Your task to perform on an android device: uninstall "Instagram" Image 0: 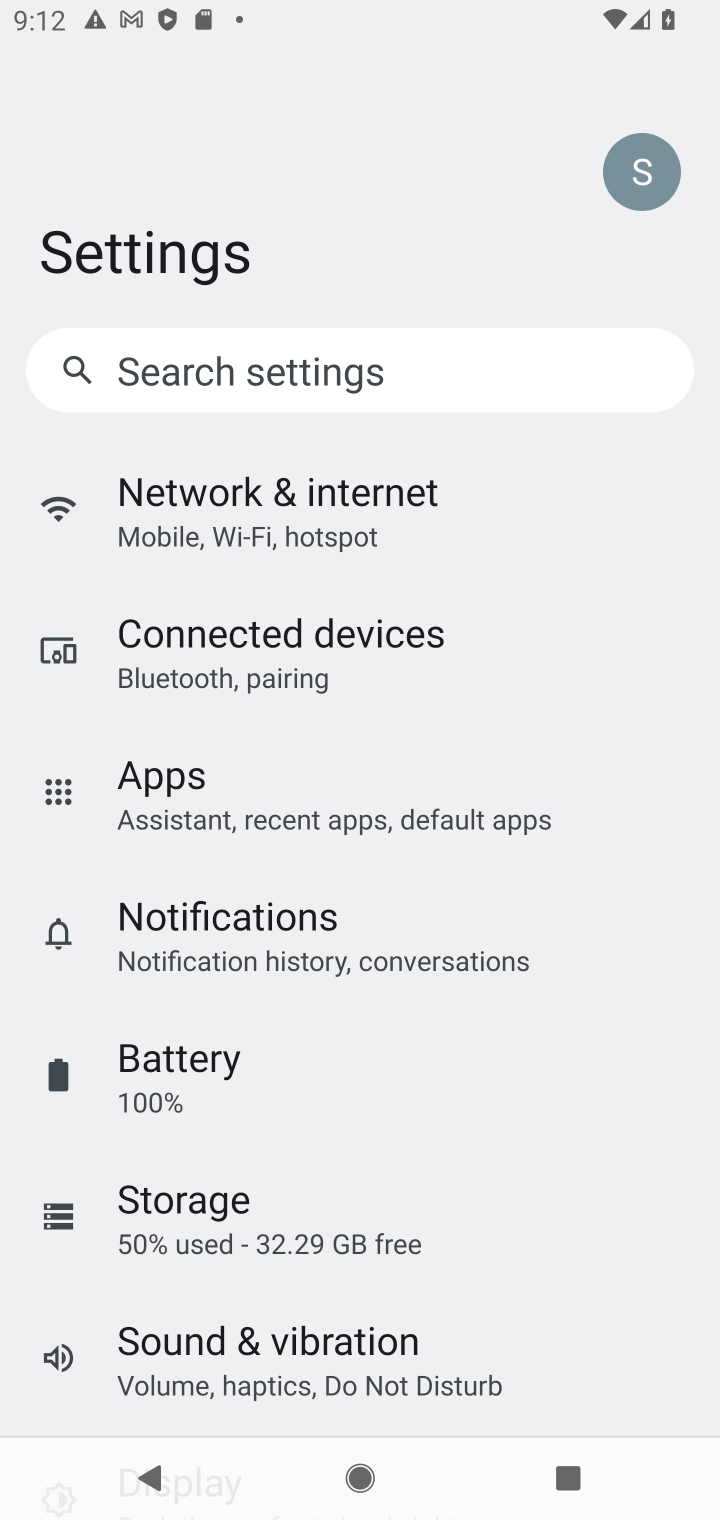
Step 0: press home button
Your task to perform on an android device: uninstall "Instagram" Image 1: 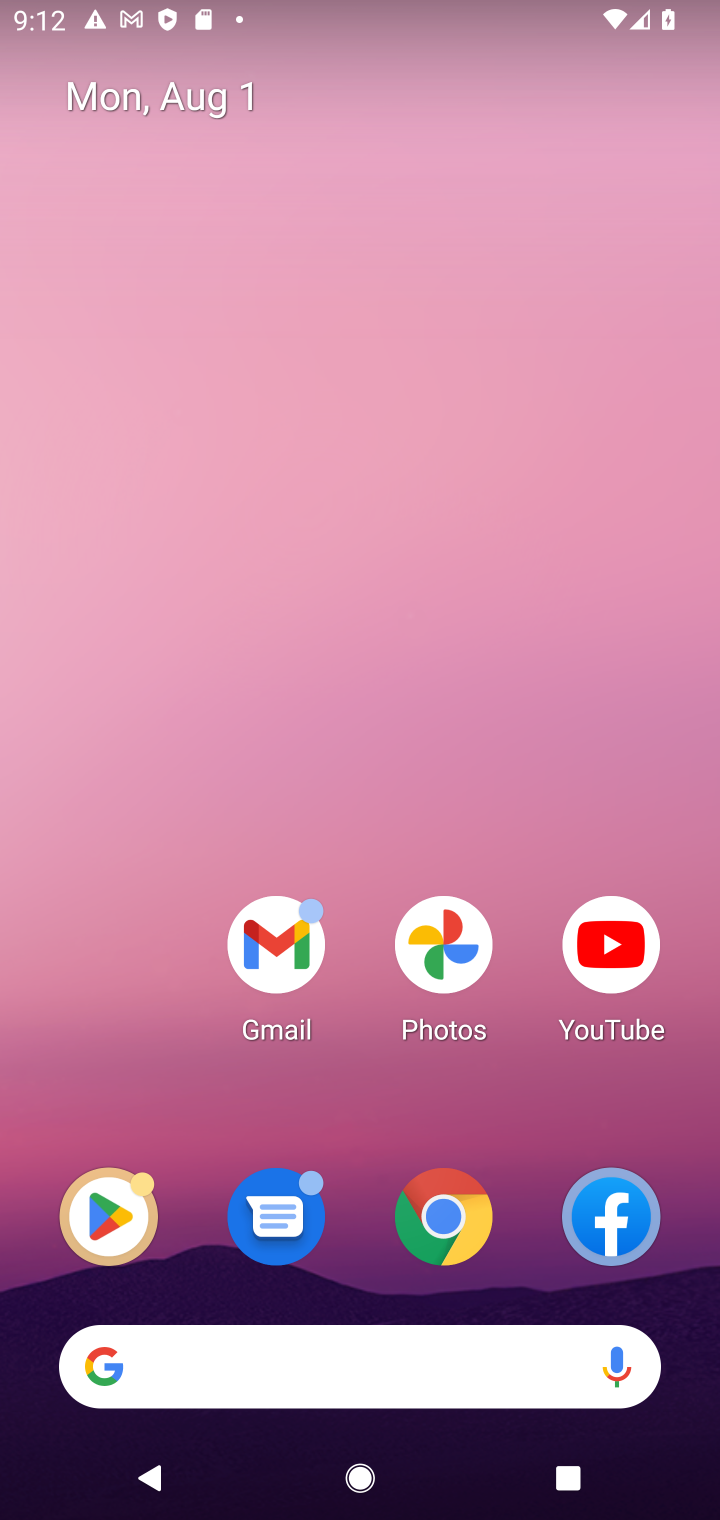
Step 1: click (123, 1224)
Your task to perform on an android device: uninstall "Instagram" Image 2: 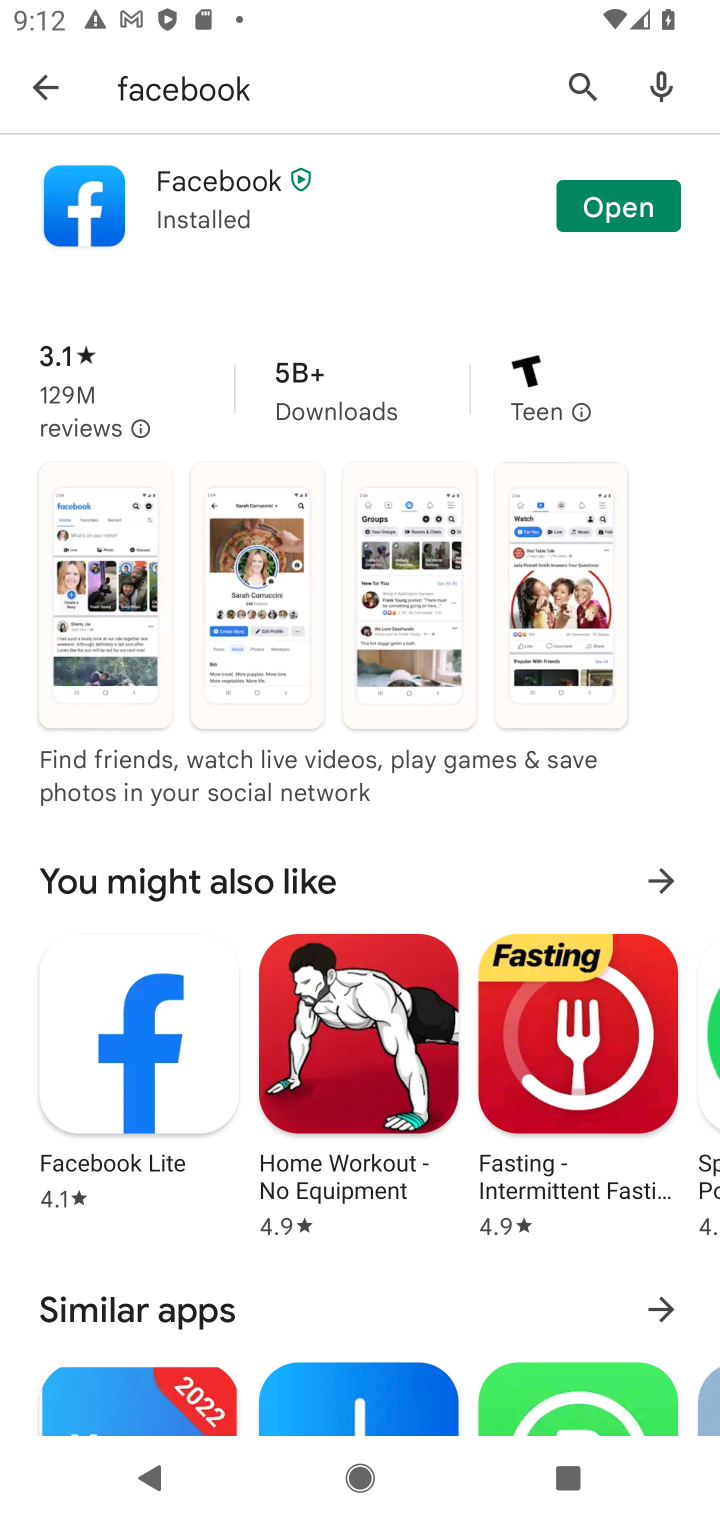
Step 2: click (590, 83)
Your task to perform on an android device: uninstall "Instagram" Image 3: 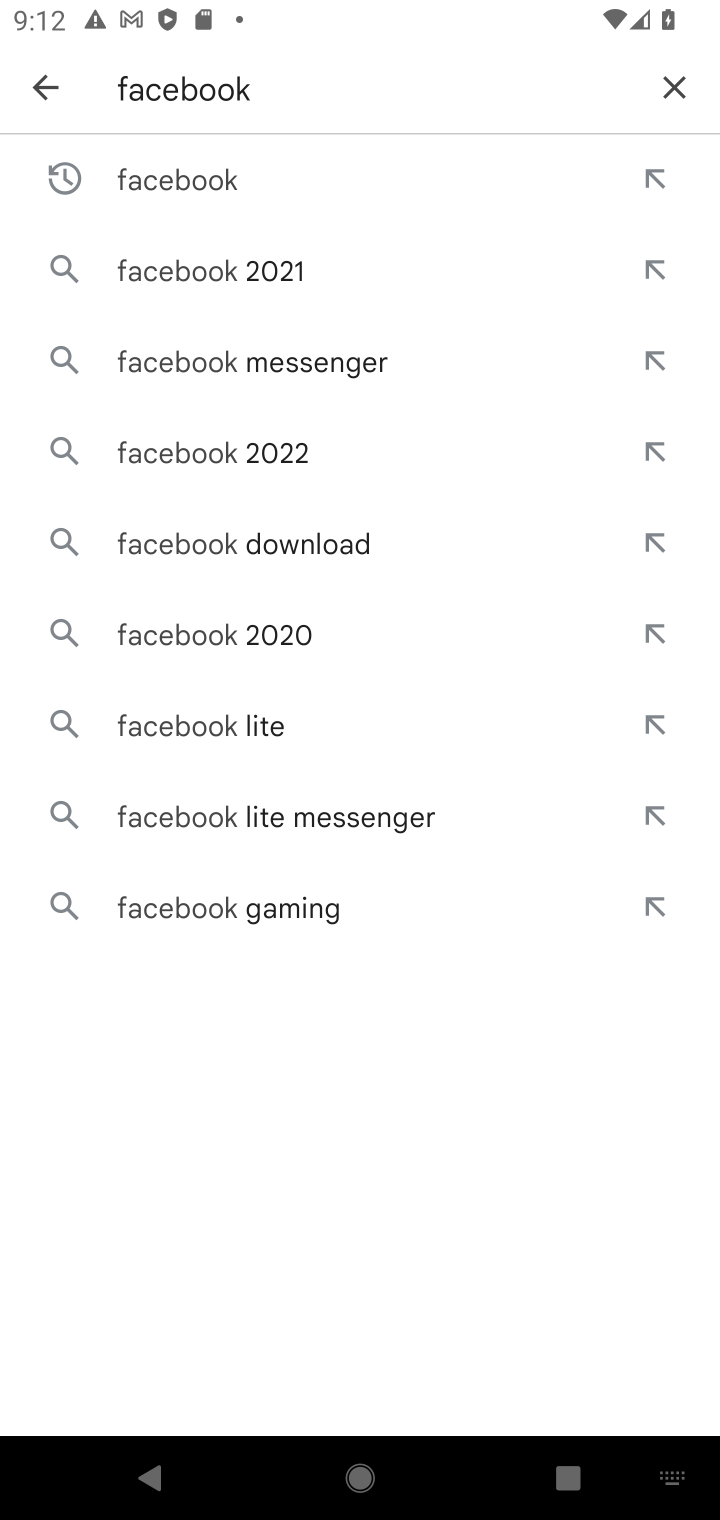
Step 3: click (670, 94)
Your task to perform on an android device: uninstall "Instagram" Image 4: 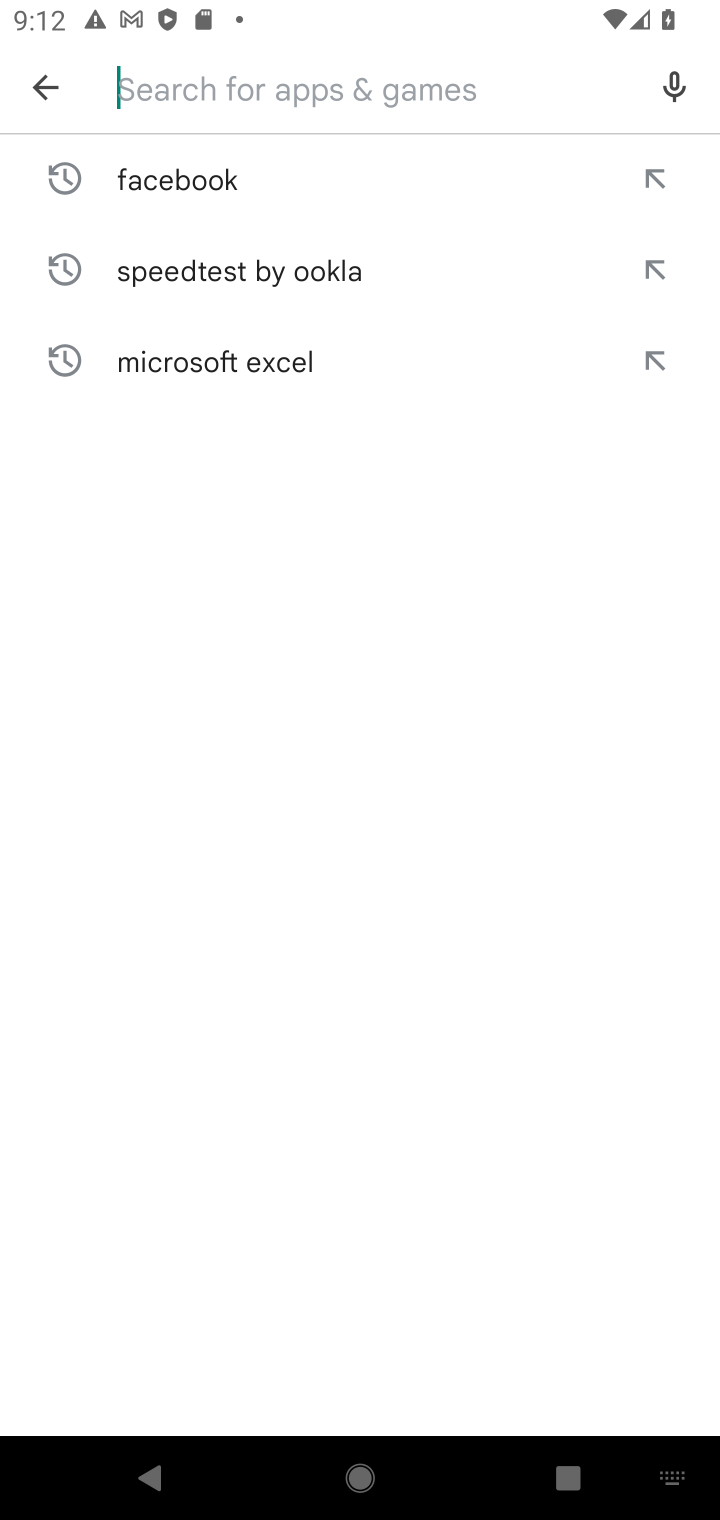
Step 4: type "Instagram"
Your task to perform on an android device: uninstall "Instagram" Image 5: 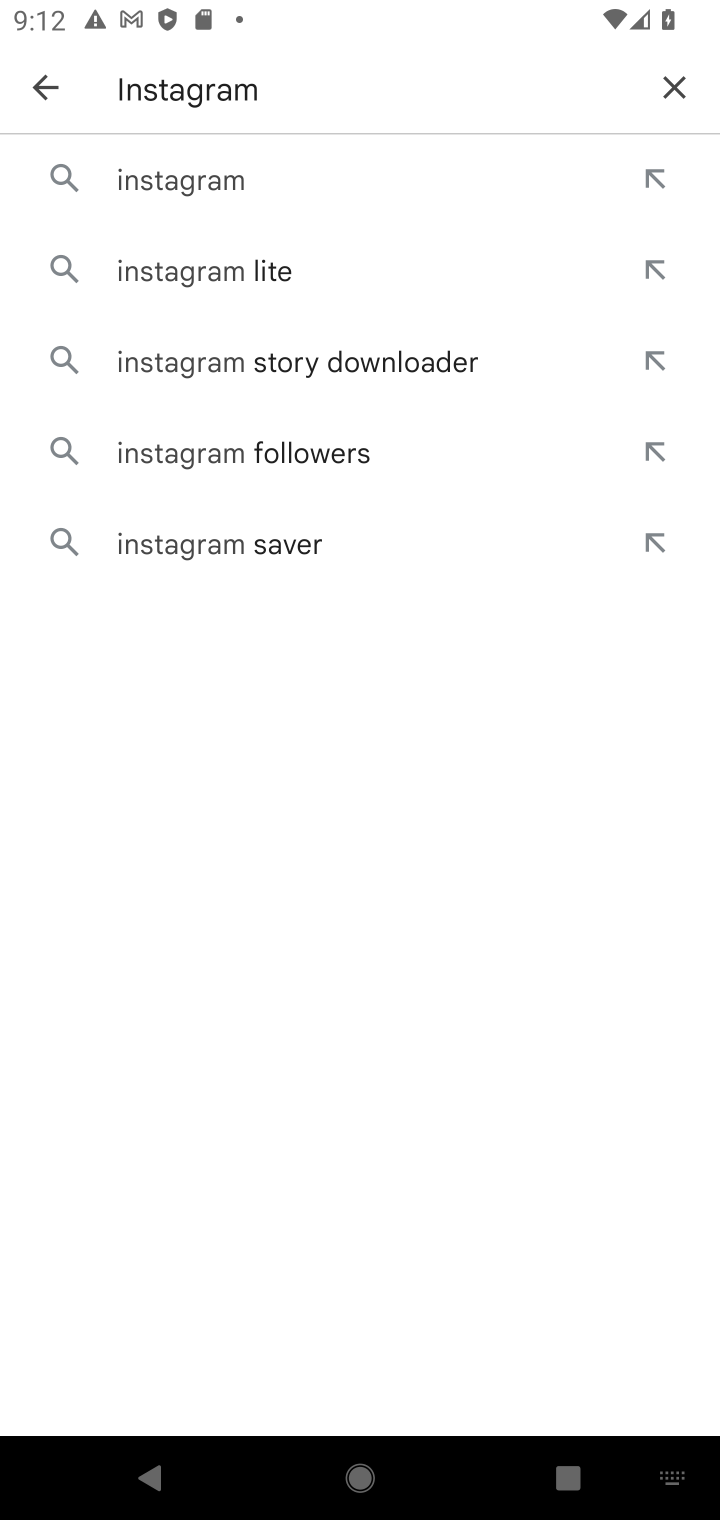
Step 5: click (161, 197)
Your task to perform on an android device: uninstall "Instagram" Image 6: 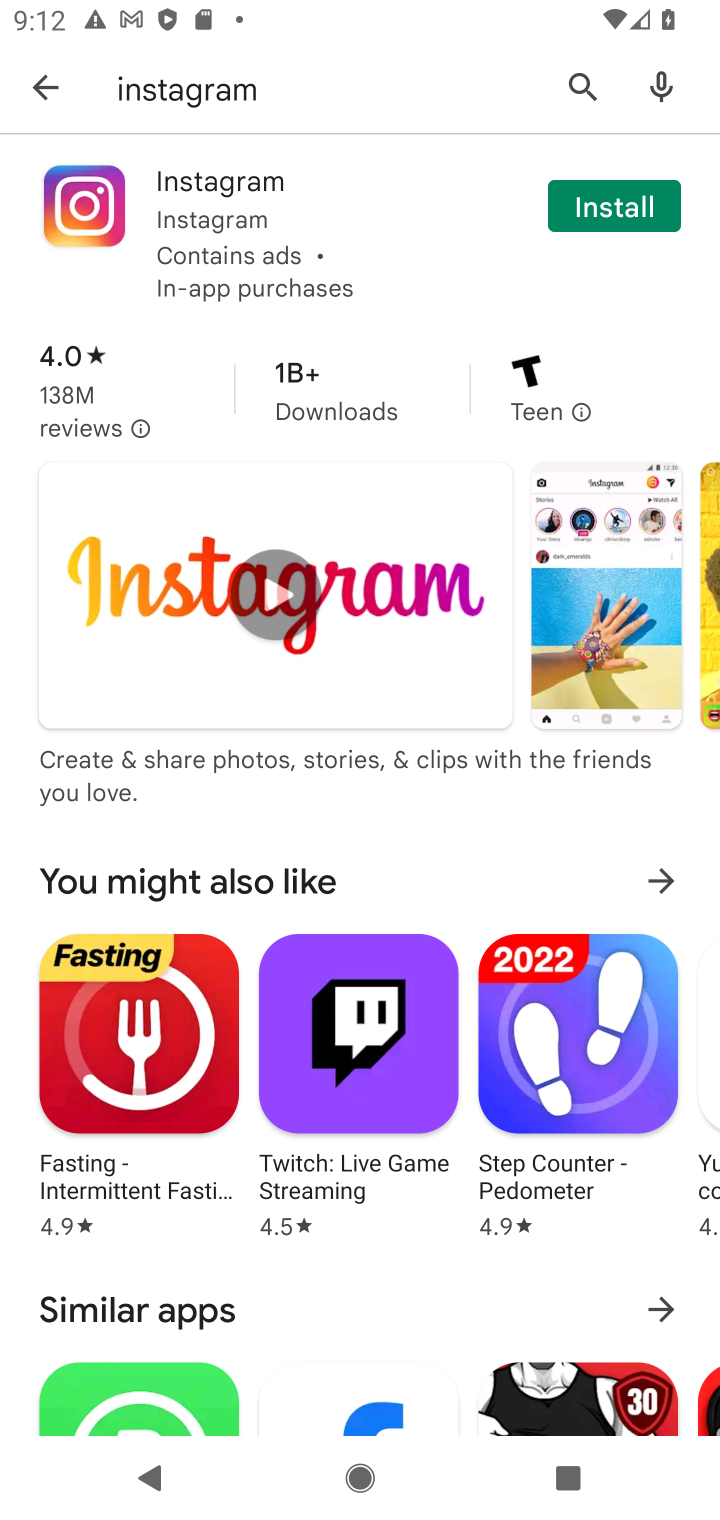
Step 6: task complete